Your task to perform on an android device: Open Google Chrome and click the shortcut for Amazon.com Image 0: 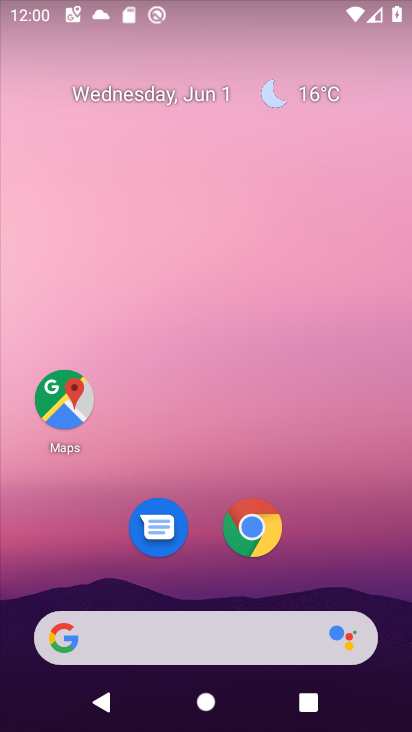
Step 0: click (253, 522)
Your task to perform on an android device: Open Google Chrome and click the shortcut for Amazon.com Image 1: 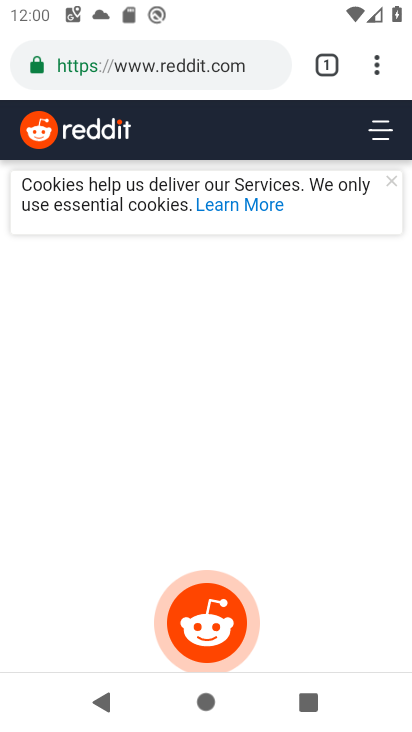
Step 1: drag from (201, 36) to (78, 726)
Your task to perform on an android device: Open Google Chrome and click the shortcut for Amazon.com Image 2: 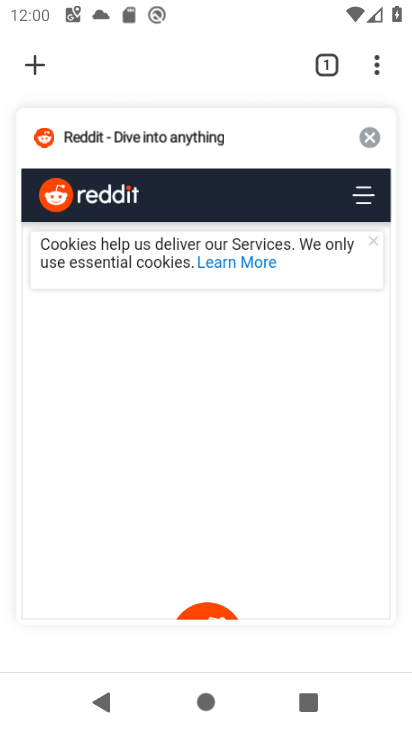
Step 2: click (40, 69)
Your task to perform on an android device: Open Google Chrome and click the shortcut for Amazon.com Image 3: 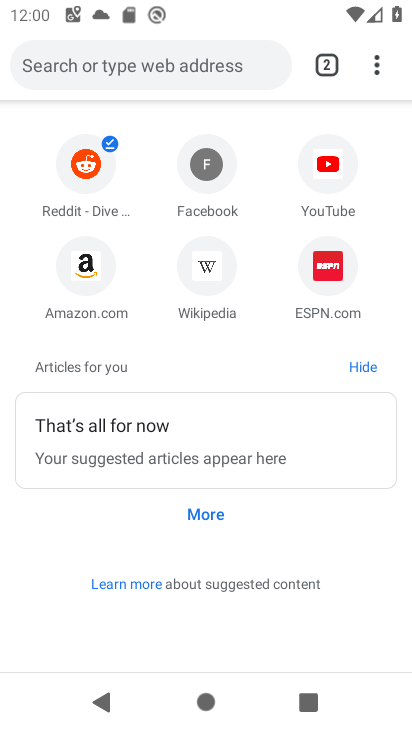
Step 3: click (94, 265)
Your task to perform on an android device: Open Google Chrome and click the shortcut for Amazon.com Image 4: 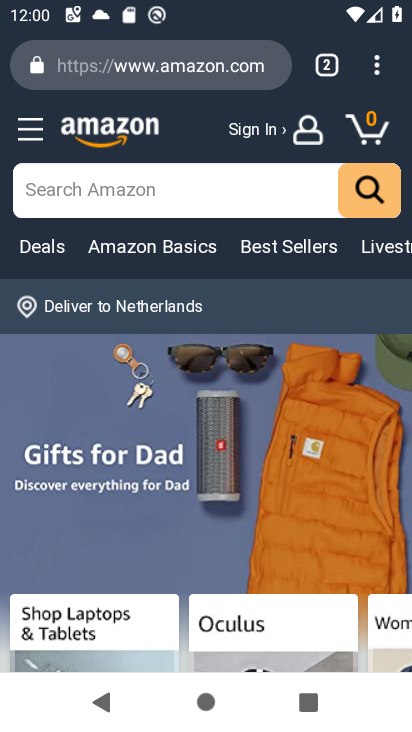
Step 4: task complete